Your task to perform on an android device: toggle sleep mode Image 0: 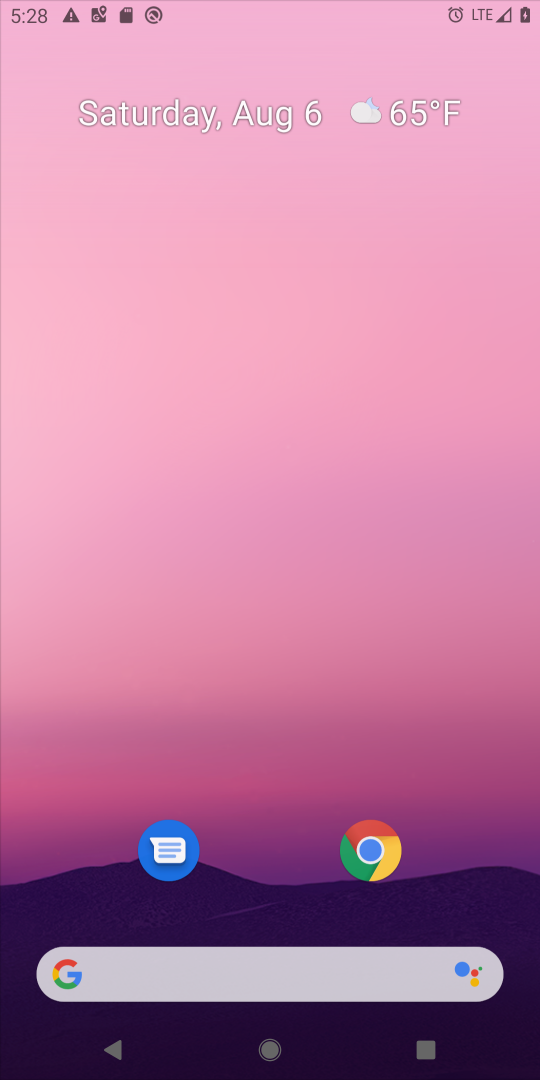
Step 0: press back button
Your task to perform on an android device: toggle sleep mode Image 1: 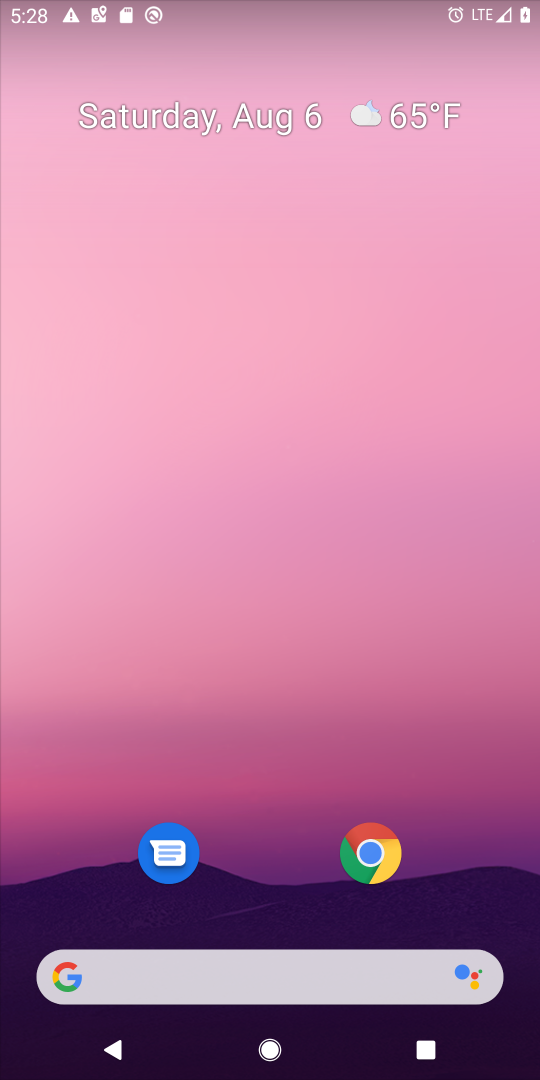
Step 1: click (376, 856)
Your task to perform on an android device: toggle sleep mode Image 2: 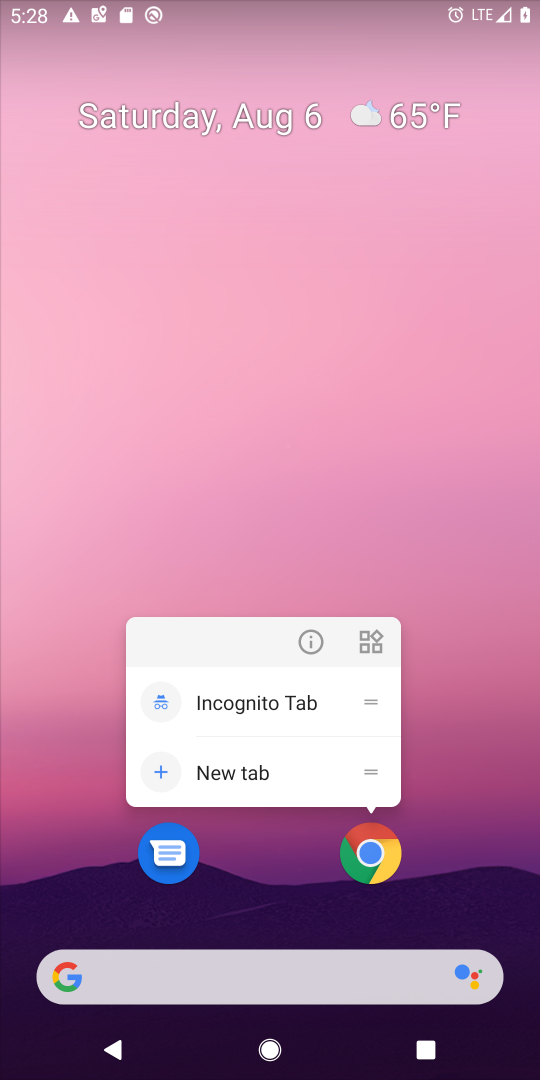
Step 2: click (292, 457)
Your task to perform on an android device: toggle sleep mode Image 3: 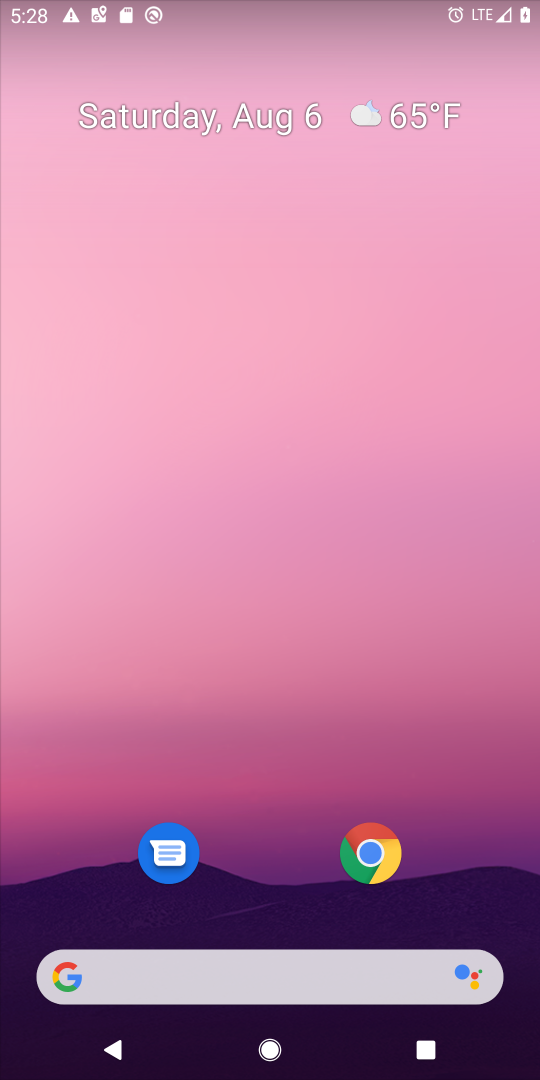
Step 3: drag from (274, 804) to (360, 127)
Your task to perform on an android device: toggle sleep mode Image 4: 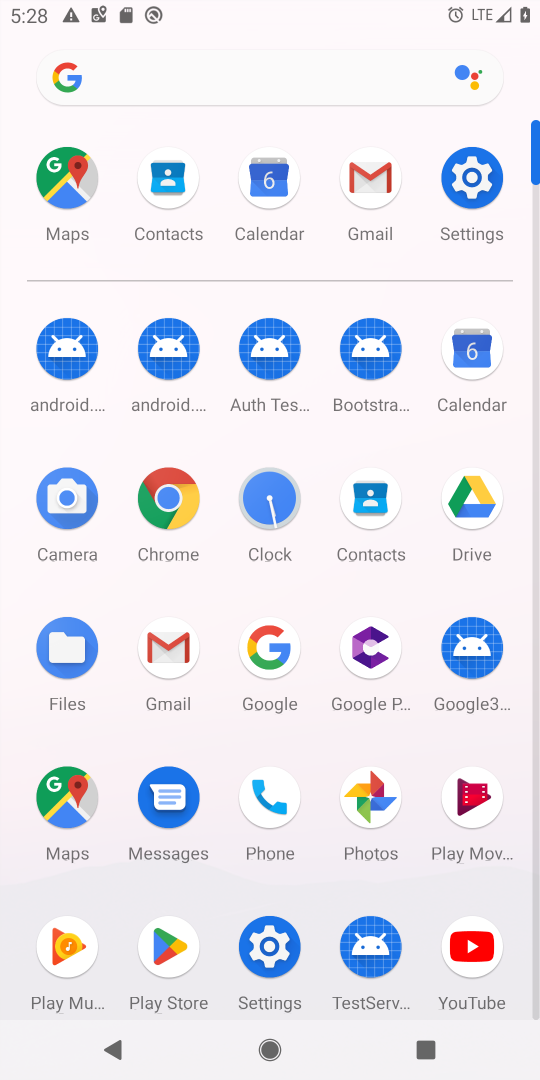
Step 4: click (467, 192)
Your task to perform on an android device: toggle sleep mode Image 5: 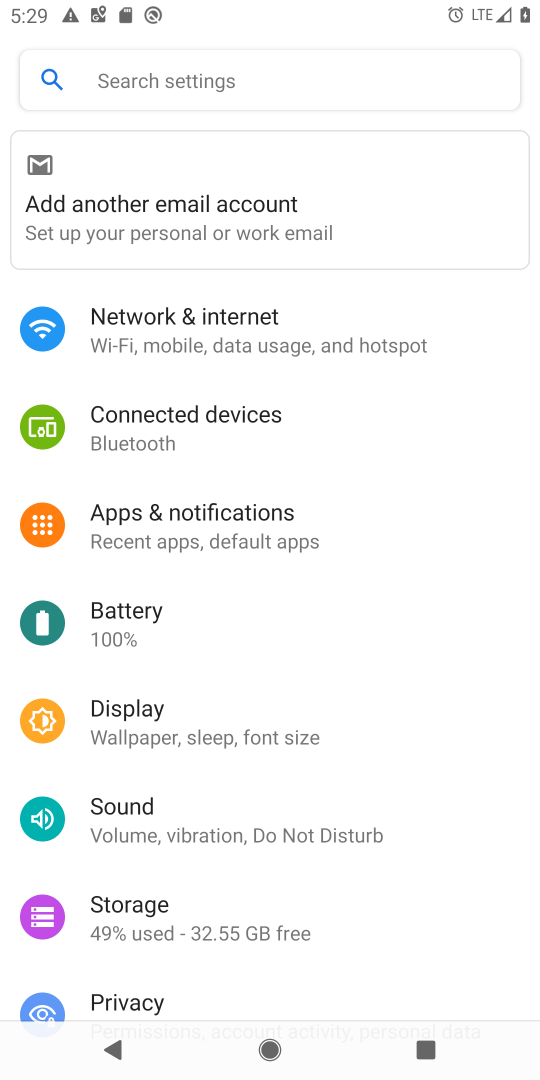
Step 5: click (189, 76)
Your task to perform on an android device: toggle sleep mode Image 6: 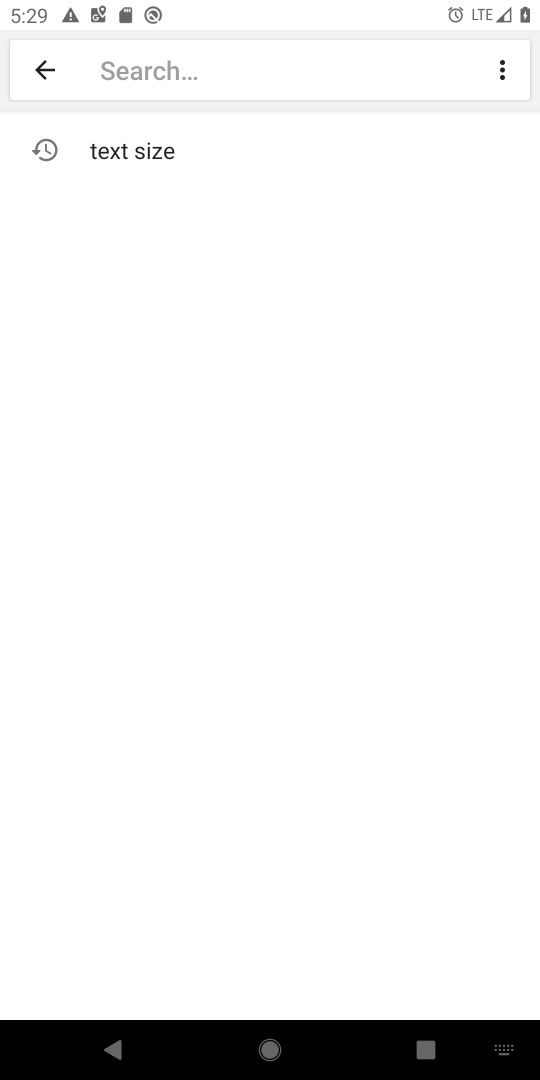
Step 6: type "sleep mode"
Your task to perform on an android device: toggle sleep mode Image 7: 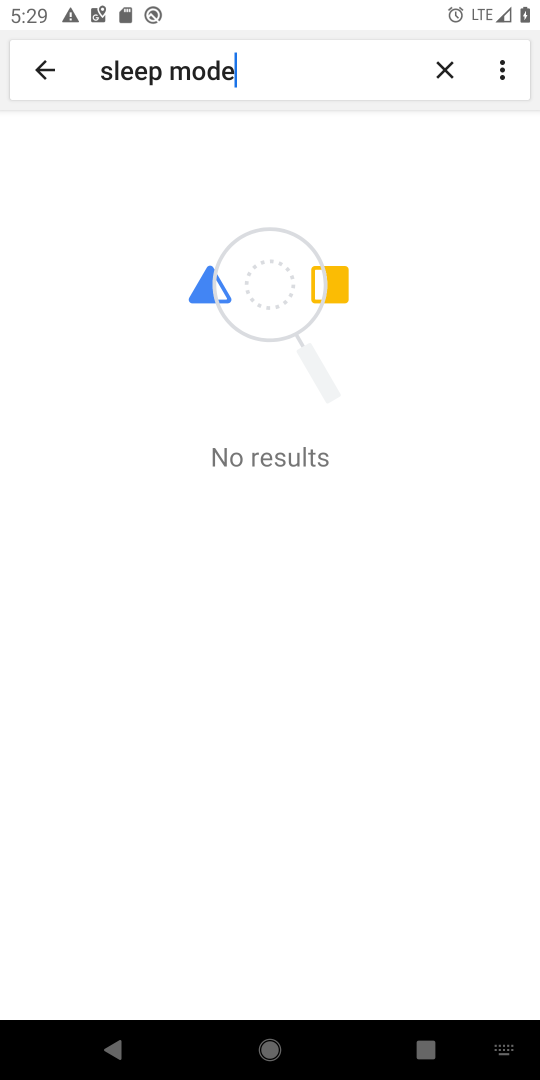
Step 7: task complete